Your task to perform on an android device: Open Google Chrome Image 0: 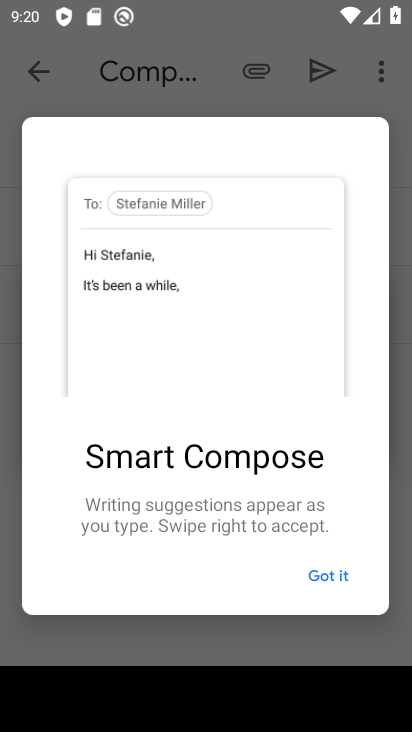
Step 0: press home button
Your task to perform on an android device: Open Google Chrome Image 1: 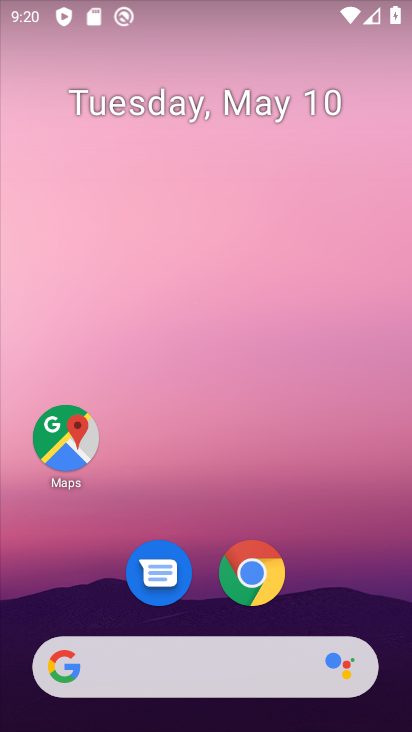
Step 1: click (254, 571)
Your task to perform on an android device: Open Google Chrome Image 2: 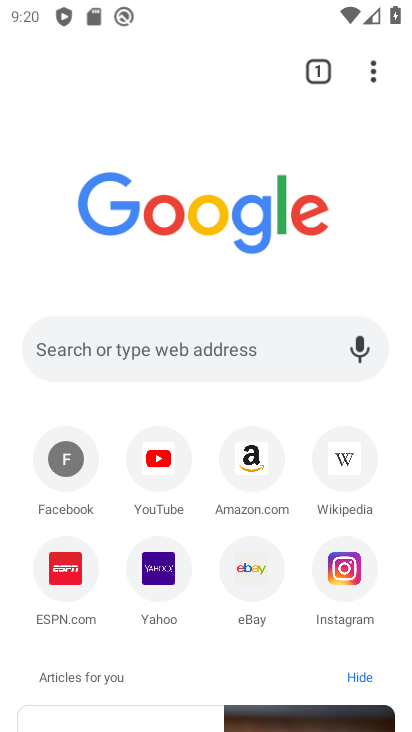
Step 2: task complete